Your task to perform on an android device: open chrome and create a bookmark for the current page Image 0: 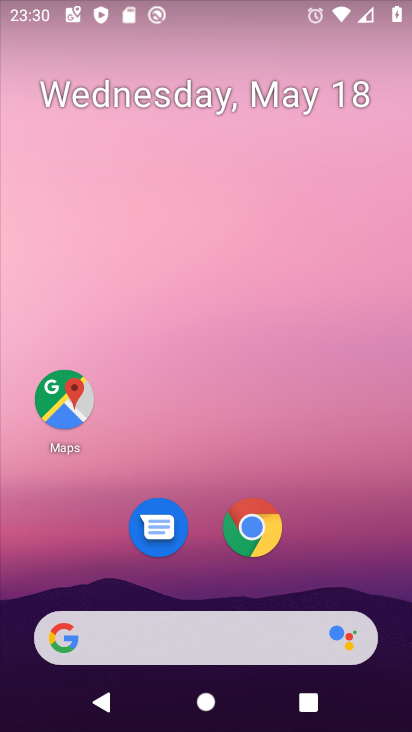
Step 0: click (263, 539)
Your task to perform on an android device: open chrome and create a bookmark for the current page Image 1: 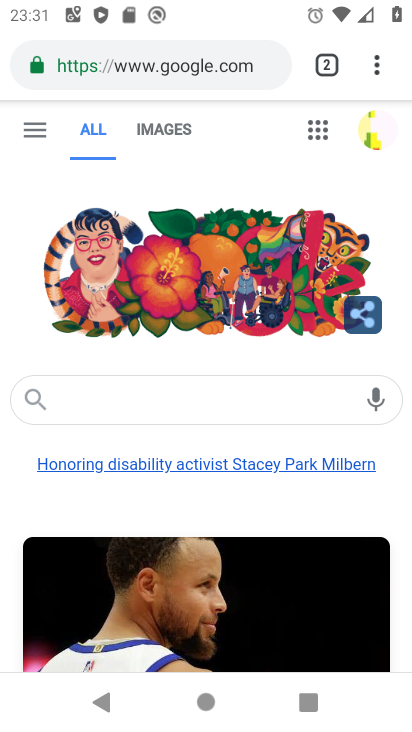
Step 1: click (325, 61)
Your task to perform on an android device: open chrome and create a bookmark for the current page Image 2: 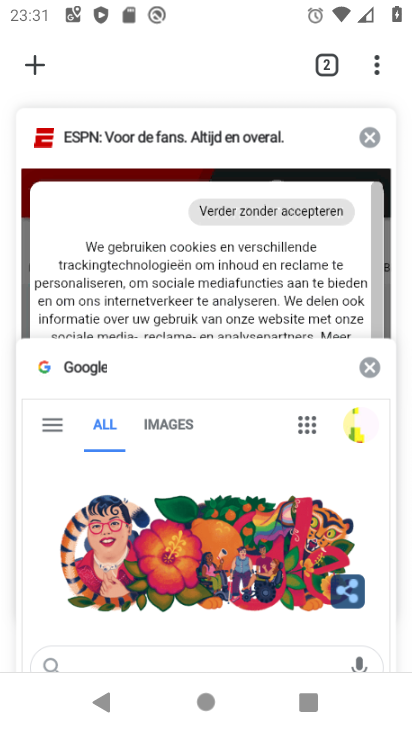
Step 2: click (321, 130)
Your task to perform on an android device: open chrome and create a bookmark for the current page Image 3: 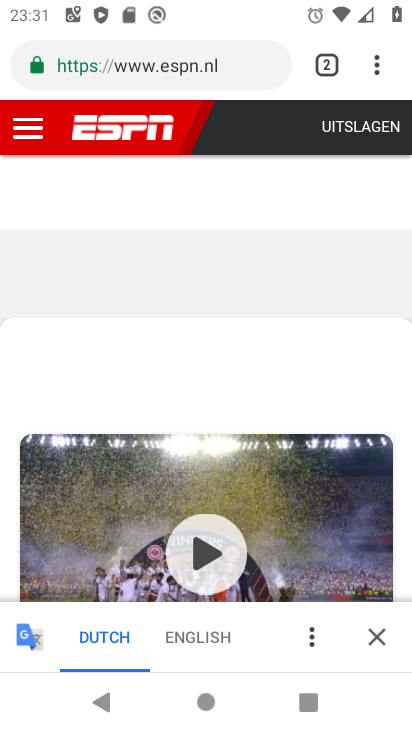
Step 3: click (383, 53)
Your task to perform on an android device: open chrome and create a bookmark for the current page Image 4: 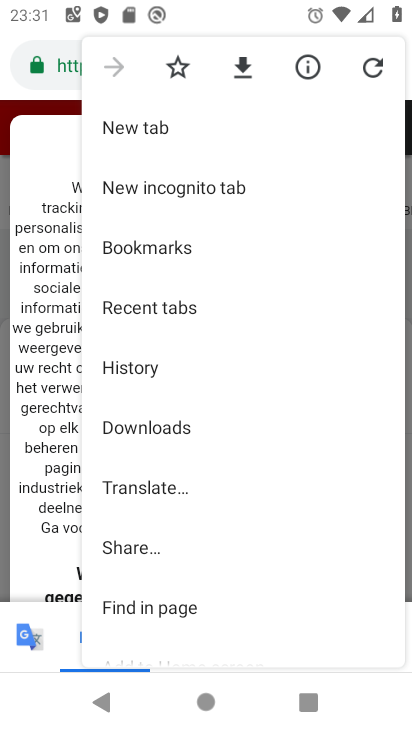
Step 4: click (181, 71)
Your task to perform on an android device: open chrome and create a bookmark for the current page Image 5: 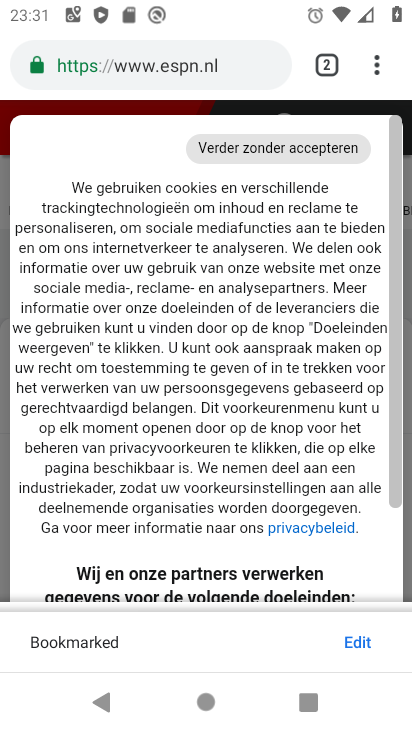
Step 5: task complete